Your task to perform on an android device: set the timer Image 0: 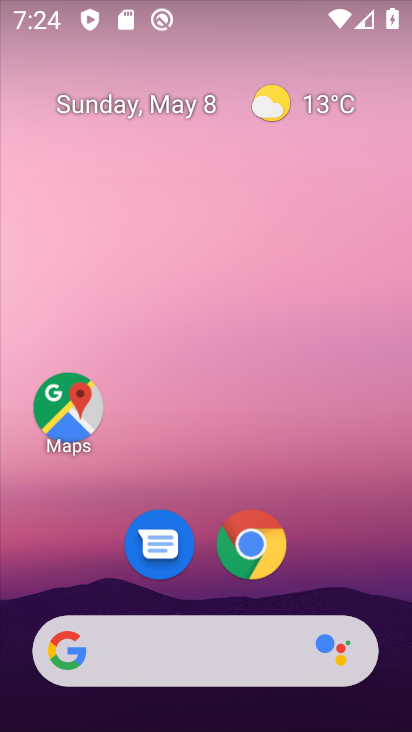
Step 0: drag from (340, 534) to (215, 66)
Your task to perform on an android device: set the timer Image 1: 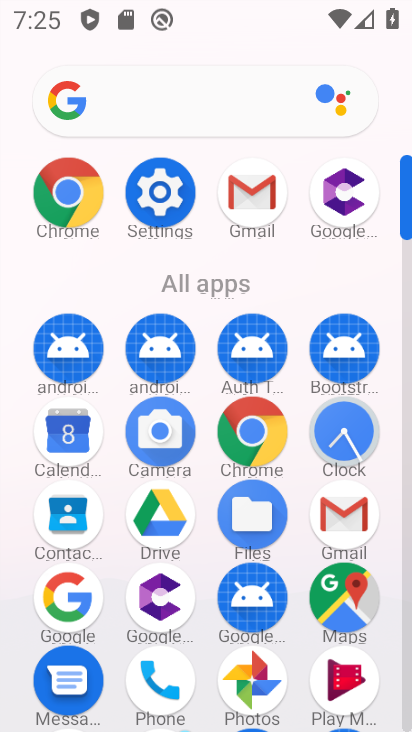
Step 1: click (354, 433)
Your task to perform on an android device: set the timer Image 2: 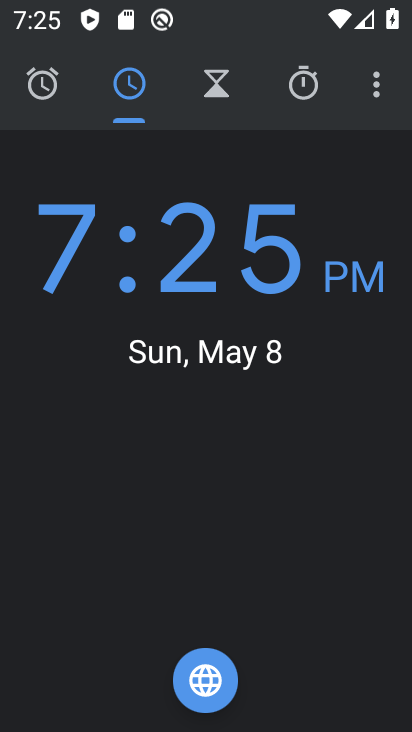
Step 2: click (222, 79)
Your task to perform on an android device: set the timer Image 3: 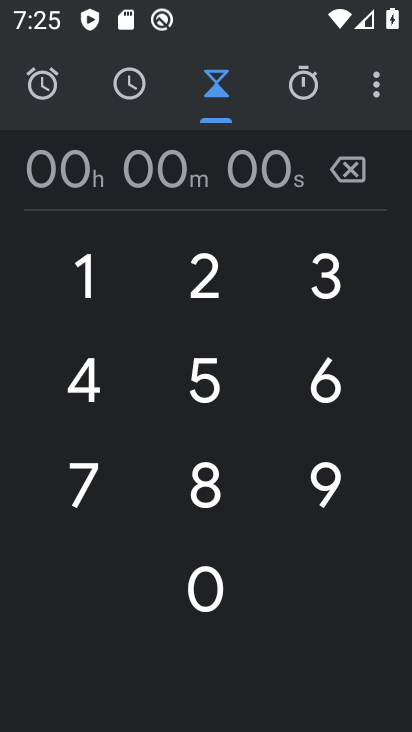
Step 3: click (78, 253)
Your task to perform on an android device: set the timer Image 4: 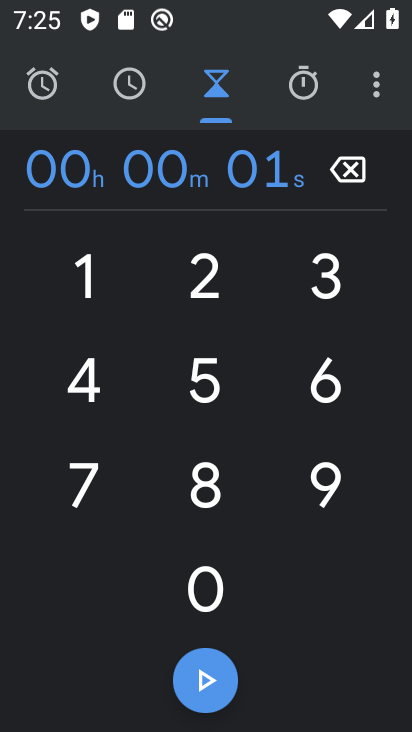
Step 4: click (87, 277)
Your task to perform on an android device: set the timer Image 5: 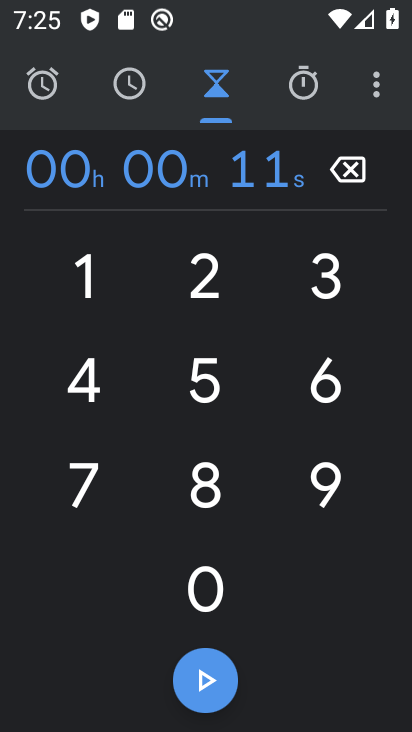
Step 5: click (87, 277)
Your task to perform on an android device: set the timer Image 6: 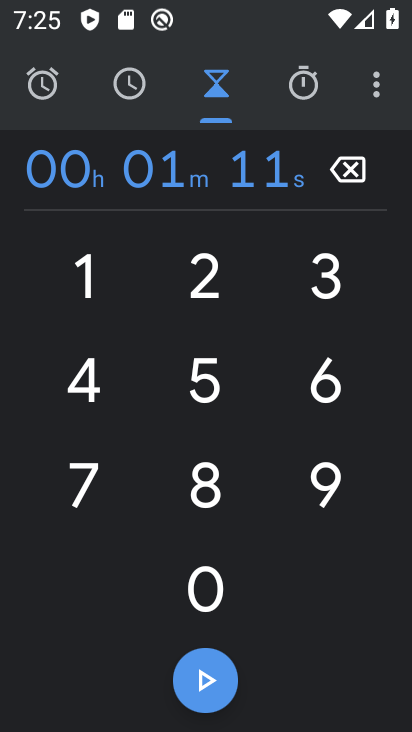
Step 6: click (87, 277)
Your task to perform on an android device: set the timer Image 7: 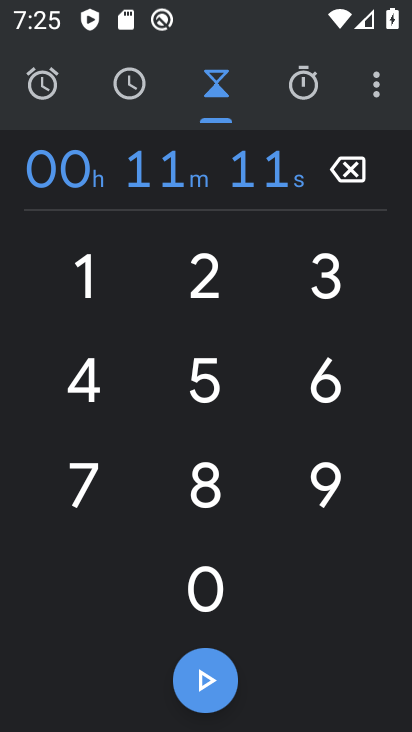
Step 7: click (87, 277)
Your task to perform on an android device: set the timer Image 8: 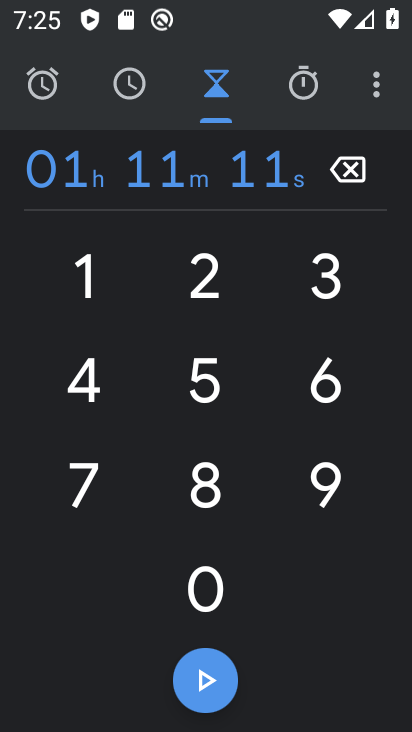
Step 8: task complete